Your task to perform on an android device: show emergency info Image 0: 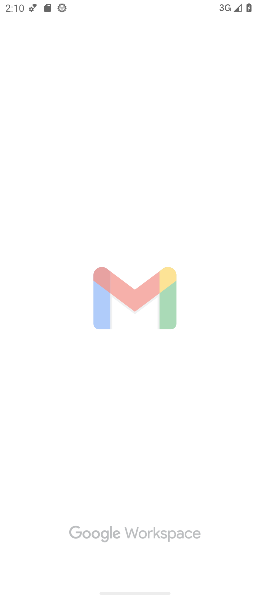
Step 0: press back button
Your task to perform on an android device: show emergency info Image 1: 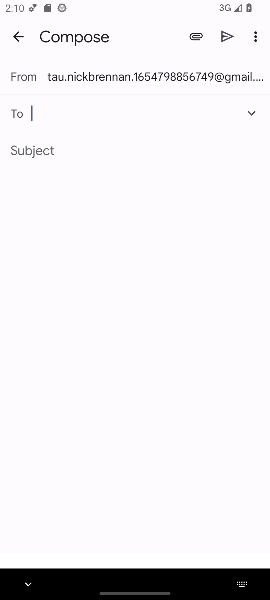
Step 1: press home button
Your task to perform on an android device: show emergency info Image 2: 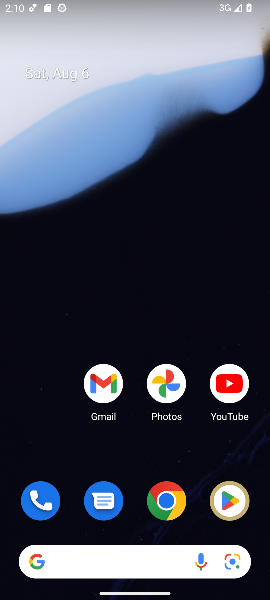
Step 2: drag from (135, 530) to (215, 85)
Your task to perform on an android device: show emergency info Image 3: 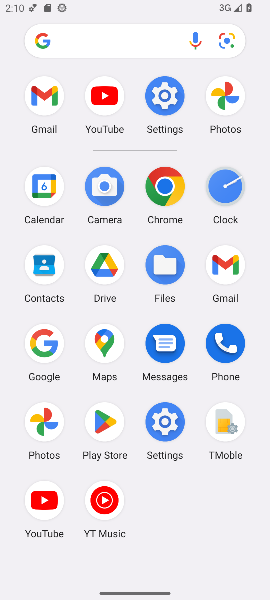
Step 3: click (157, 100)
Your task to perform on an android device: show emergency info Image 4: 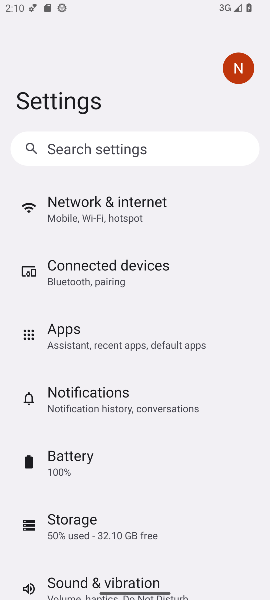
Step 4: drag from (212, 512) to (226, 6)
Your task to perform on an android device: show emergency info Image 5: 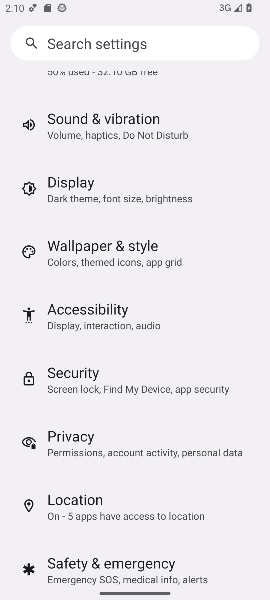
Step 5: drag from (207, 540) to (233, 82)
Your task to perform on an android device: show emergency info Image 6: 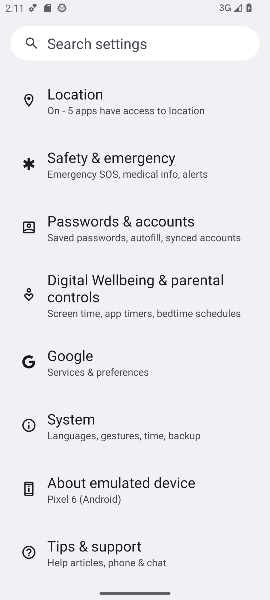
Step 6: click (113, 500)
Your task to perform on an android device: show emergency info Image 7: 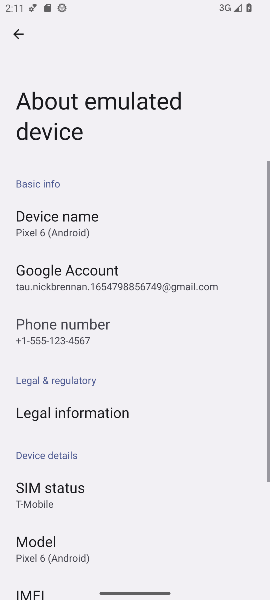
Step 7: task complete